Your task to perform on an android device: Go to Reddit.com Image 0: 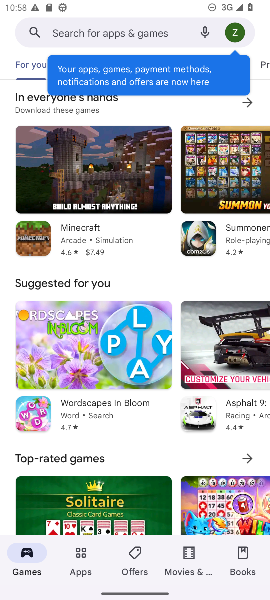
Step 0: press home button
Your task to perform on an android device: Go to Reddit.com Image 1: 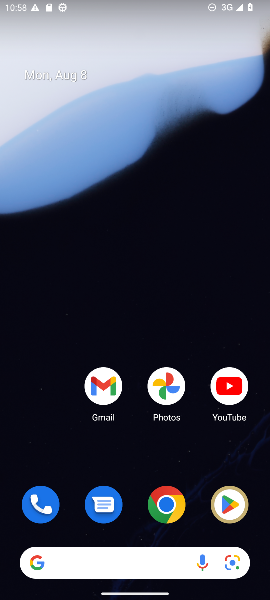
Step 1: click (160, 503)
Your task to perform on an android device: Go to Reddit.com Image 2: 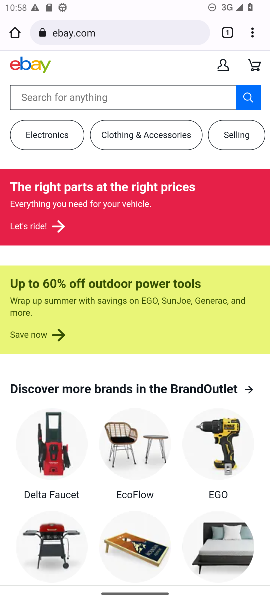
Step 2: click (116, 34)
Your task to perform on an android device: Go to Reddit.com Image 3: 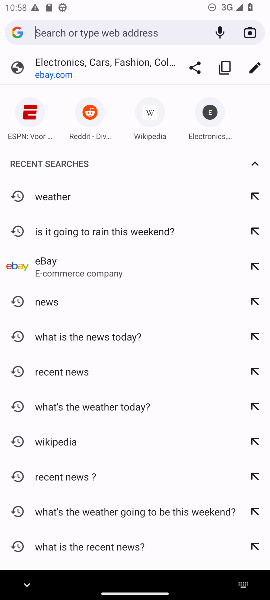
Step 3: type "Reddit.com"
Your task to perform on an android device: Go to Reddit.com Image 4: 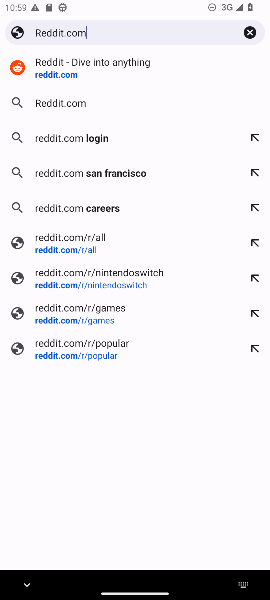
Step 4: click (92, 75)
Your task to perform on an android device: Go to Reddit.com Image 5: 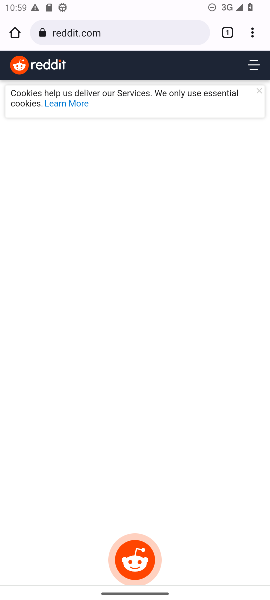
Step 5: task complete